Your task to perform on an android device: Go to privacy settings Image 0: 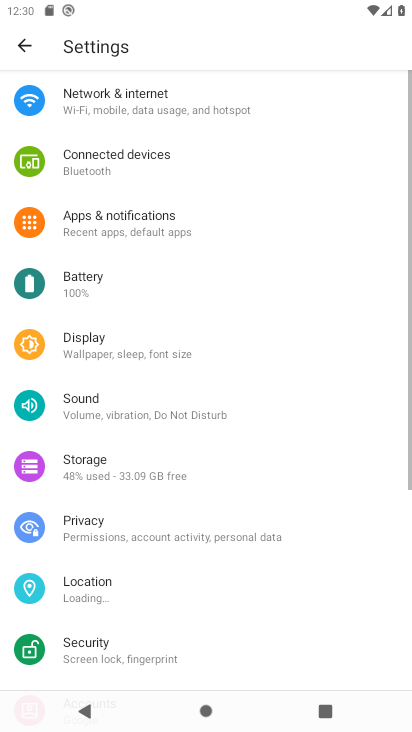
Step 0: press home button
Your task to perform on an android device: Go to privacy settings Image 1: 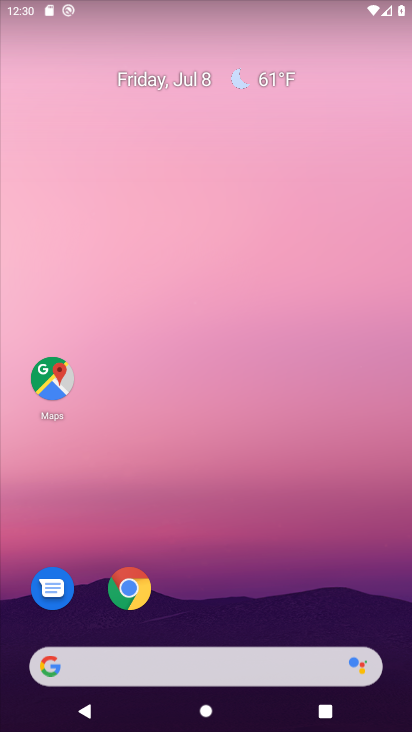
Step 1: drag from (305, 565) to (346, 57)
Your task to perform on an android device: Go to privacy settings Image 2: 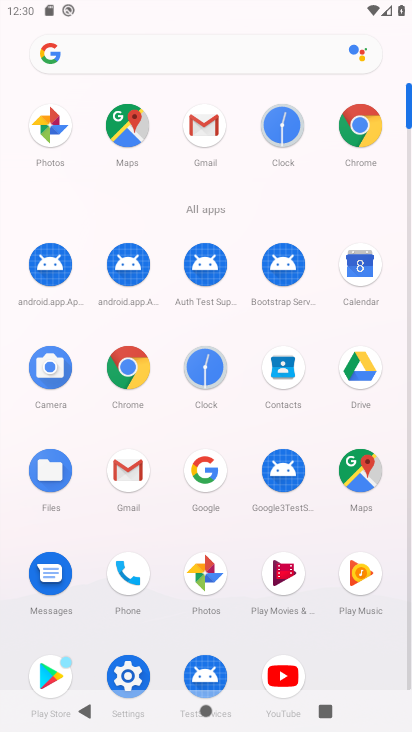
Step 2: click (117, 680)
Your task to perform on an android device: Go to privacy settings Image 3: 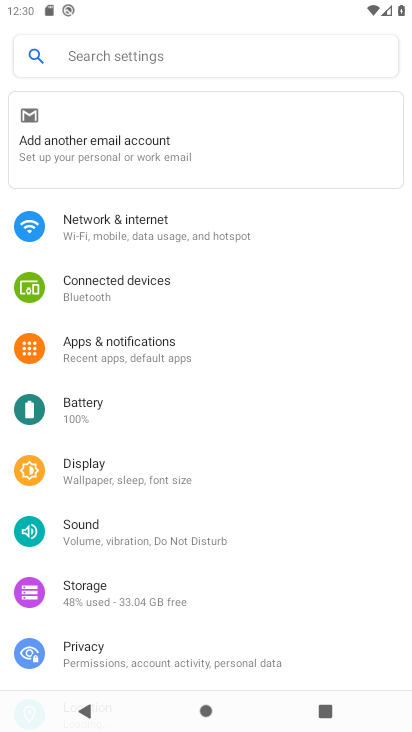
Step 3: click (125, 652)
Your task to perform on an android device: Go to privacy settings Image 4: 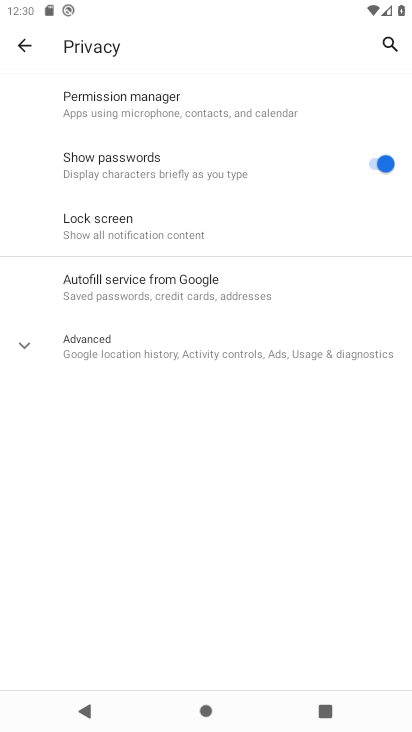
Step 4: task complete